Your task to perform on an android device: Show me the alarms in the clock app Image 0: 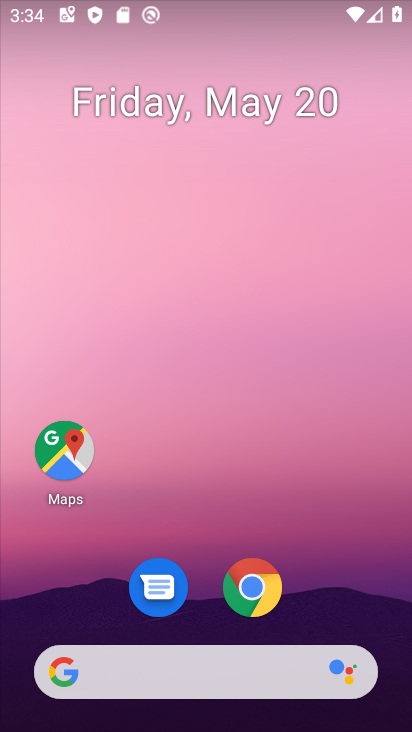
Step 0: drag from (338, 598) to (281, 12)
Your task to perform on an android device: Show me the alarms in the clock app Image 1: 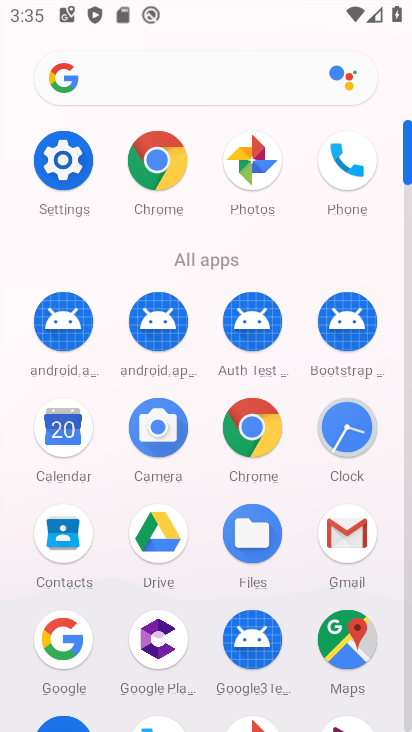
Step 1: click (352, 427)
Your task to perform on an android device: Show me the alarms in the clock app Image 2: 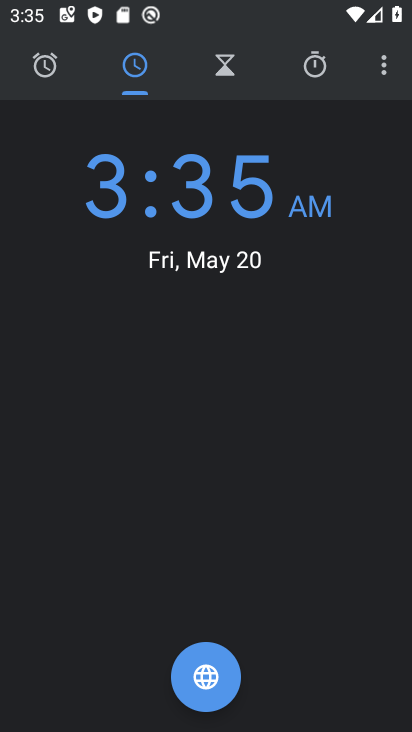
Step 2: click (46, 78)
Your task to perform on an android device: Show me the alarms in the clock app Image 3: 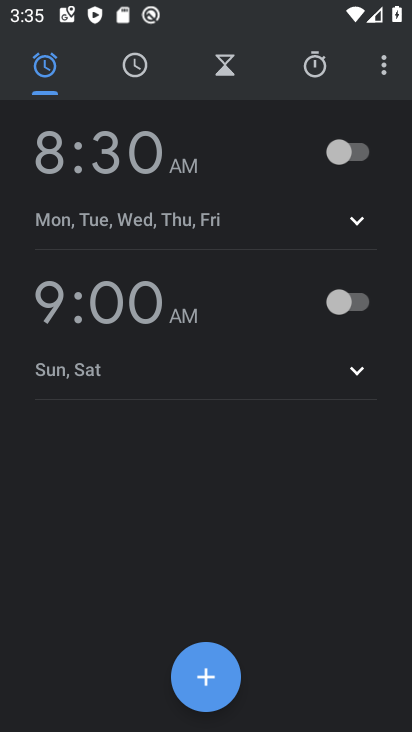
Step 3: task complete